Your task to perform on an android device: Open the calendar app, open the side menu, and click the "Day" option Image 0: 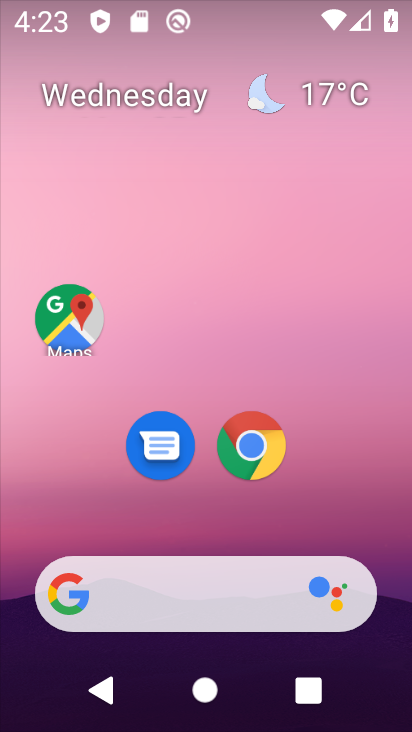
Step 0: drag from (397, 579) to (307, 55)
Your task to perform on an android device: Open the calendar app, open the side menu, and click the "Day" option Image 1: 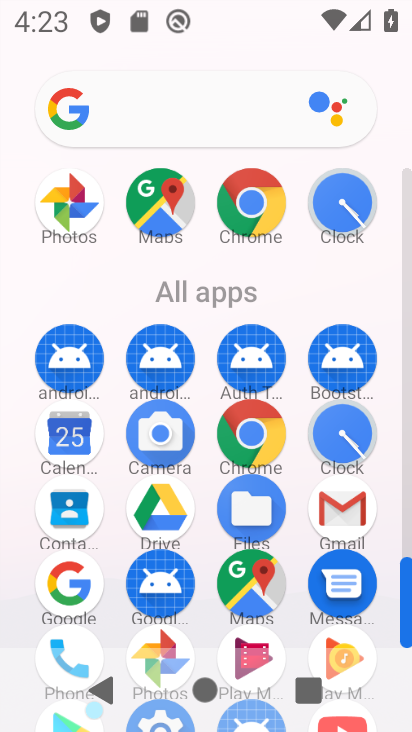
Step 1: click (76, 438)
Your task to perform on an android device: Open the calendar app, open the side menu, and click the "Day" option Image 2: 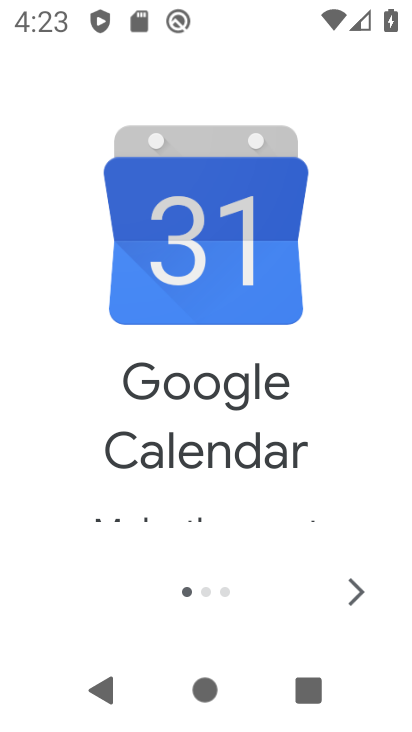
Step 2: click (348, 590)
Your task to perform on an android device: Open the calendar app, open the side menu, and click the "Day" option Image 3: 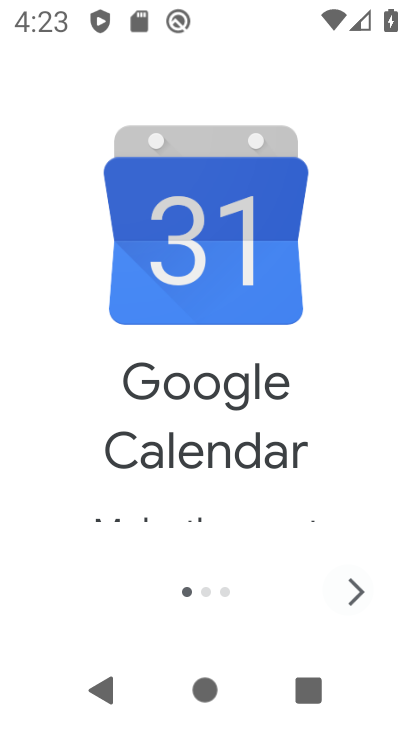
Step 3: click (348, 590)
Your task to perform on an android device: Open the calendar app, open the side menu, and click the "Day" option Image 4: 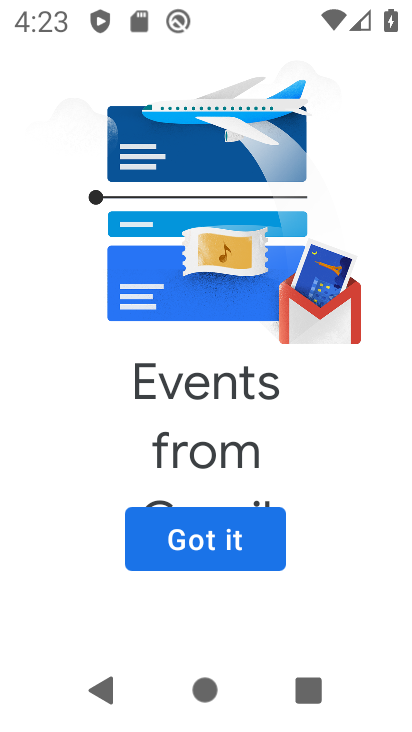
Step 4: click (360, 592)
Your task to perform on an android device: Open the calendar app, open the side menu, and click the "Day" option Image 5: 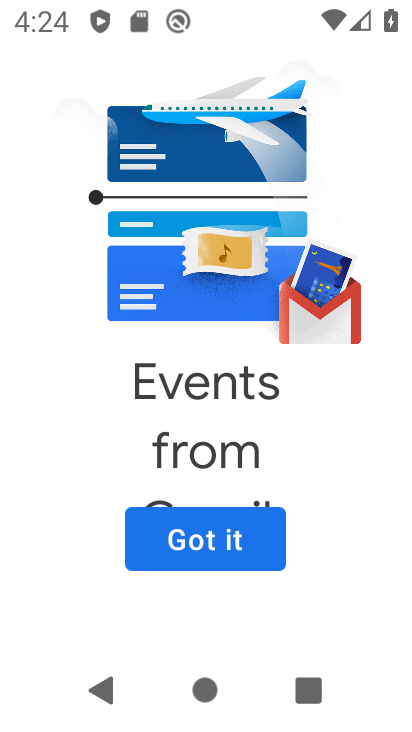
Step 5: click (255, 540)
Your task to perform on an android device: Open the calendar app, open the side menu, and click the "Day" option Image 6: 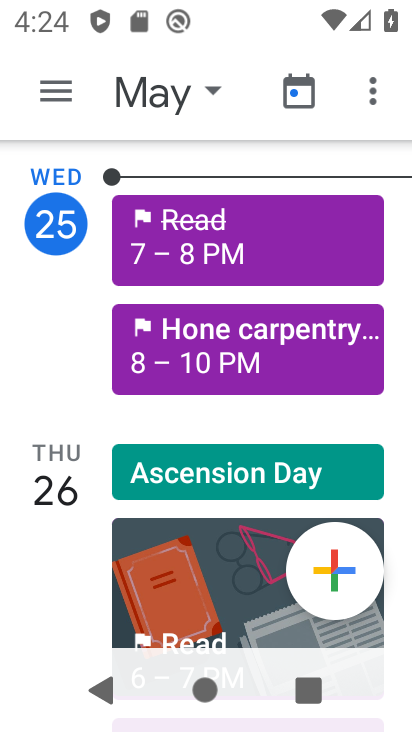
Step 6: click (59, 90)
Your task to perform on an android device: Open the calendar app, open the side menu, and click the "Day" option Image 7: 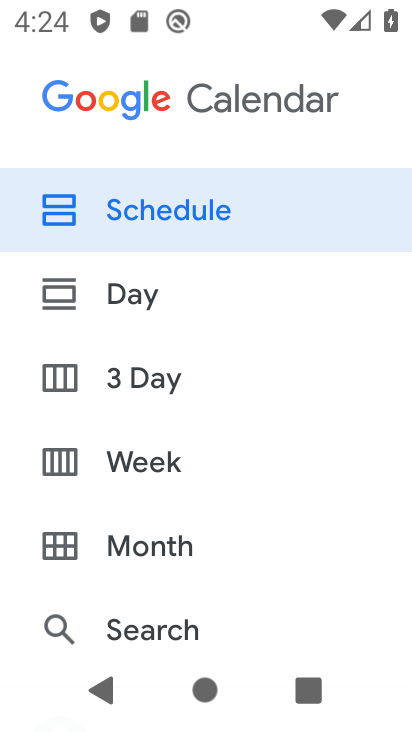
Step 7: click (128, 287)
Your task to perform on an android device: Open the calendar app, open the side menu, and click the "Day" option Image 8: 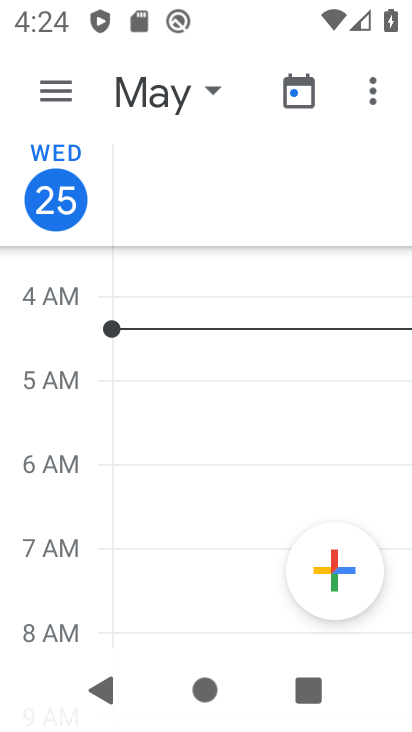
Step 8: task complete